Your task to perform on an android device: turn off improve location accuracy Image 0: 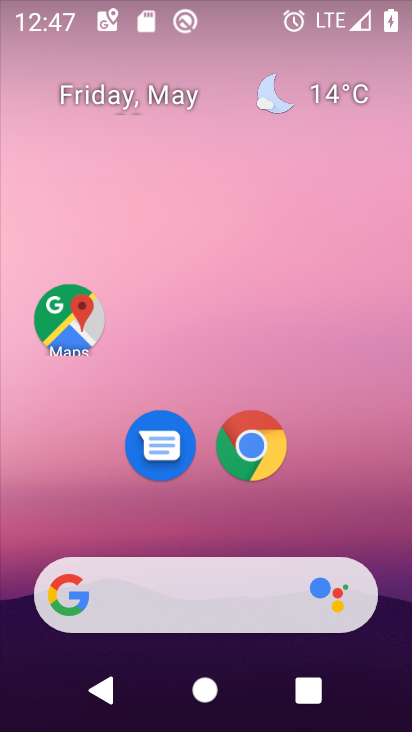
Step 0: drag from (147, 430) to (339, 113)
Your task to perform on an android device: turn off improve location accuracy Image 1: 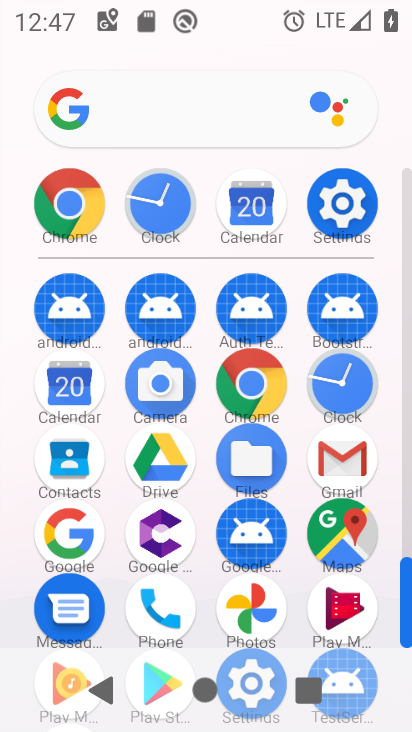
Step 1: click (325, 210)
Your task to perform on an android device: turn off improve location accuracy Image 2: 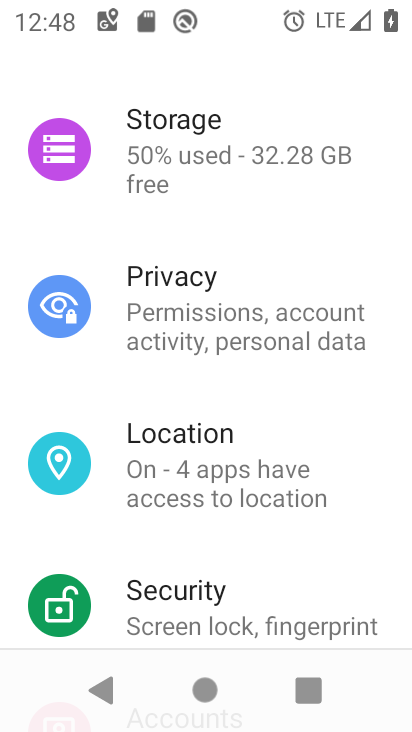
Step 2: click (141, 466)
Your task to perform on an android device: turn off improve location accuracy Image 3: 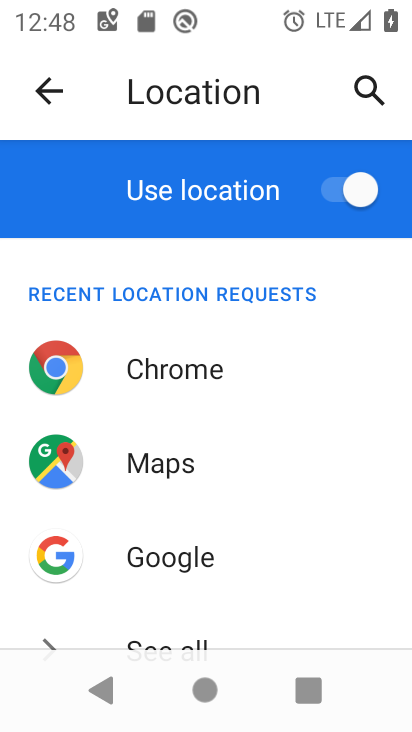
Step 3: drag from (18, 559) to (213, 244)
Your task to perform on an android device: turn off improve location accuracy Image 4: 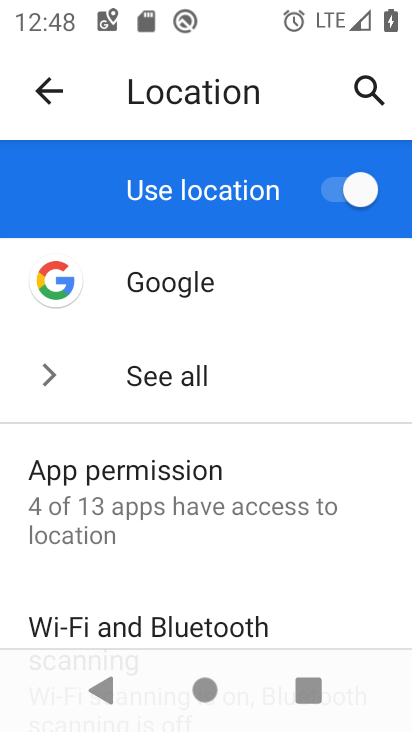
Step 4: drag from (180, 613) to (341, 267)
Your task to perform on an android device: turn off improve location accuracy Image 5: 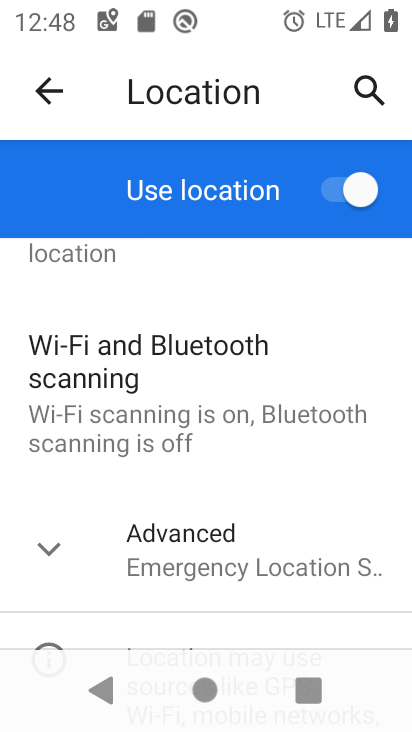
Step 5: click (144, 561)
Your task to perform on an android device: turn off improve location accuracy Image 6: 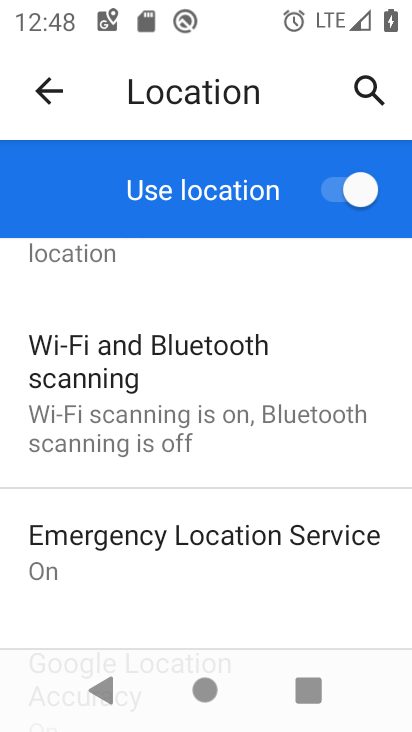
Step 6: drag from (54, 619) to (258, 242)
Your task to perform on an android device: turn off improve location accuracy Image 7: 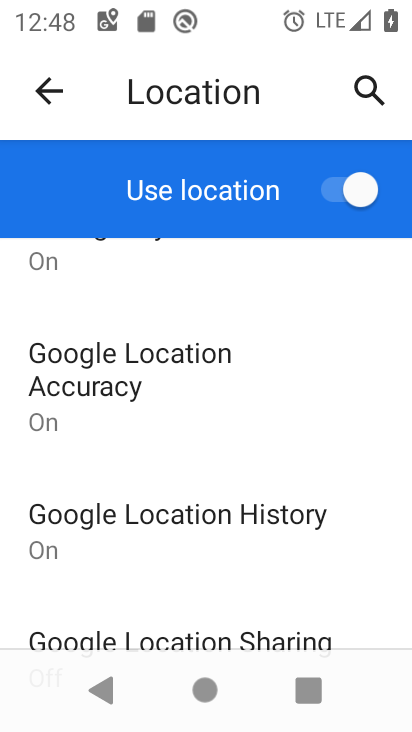
Step 7: drag from (218, 604) to (350, 269)
Your task to perform on an android device: turn off improve location accuracy Image 8: 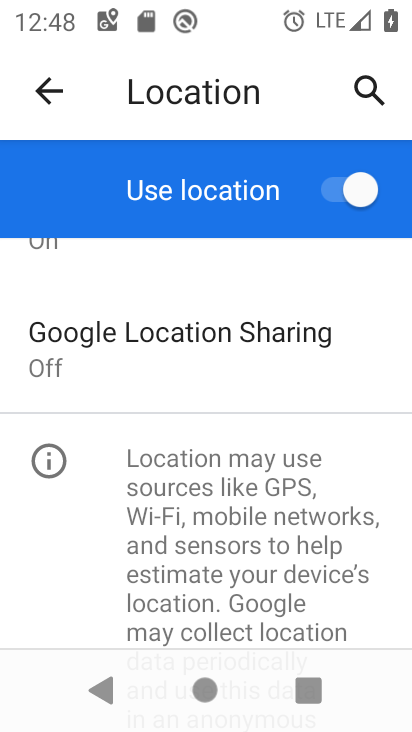
Step 8: drag from (334, 316) to (274, 634)
Your task to perform on an android device: turn off improve location accuracy Image 9: 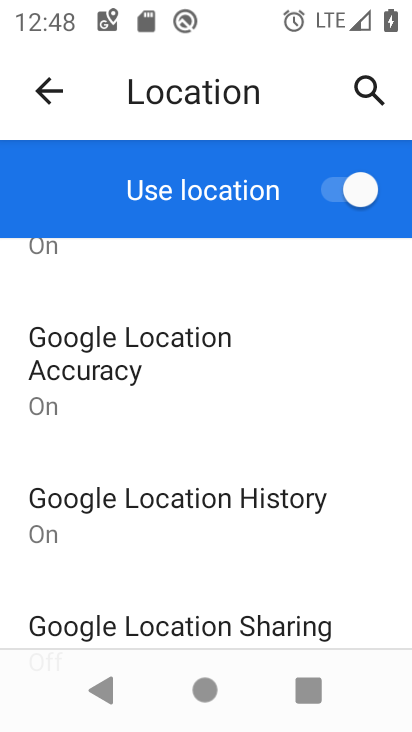
Step 9: drag from (273, 324) to (237, 519)
Your task to perform on an android device: turn off improve location accuracy Image 10: 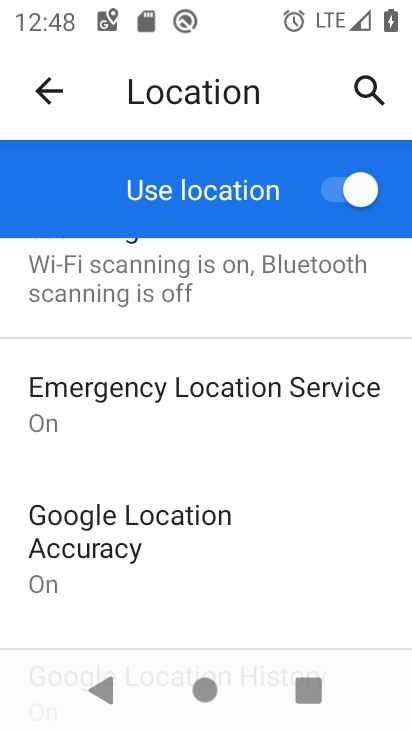
Step 10: click (103, 512)
Your task to perform on an android device: turn off improve location accuracy Image 11: 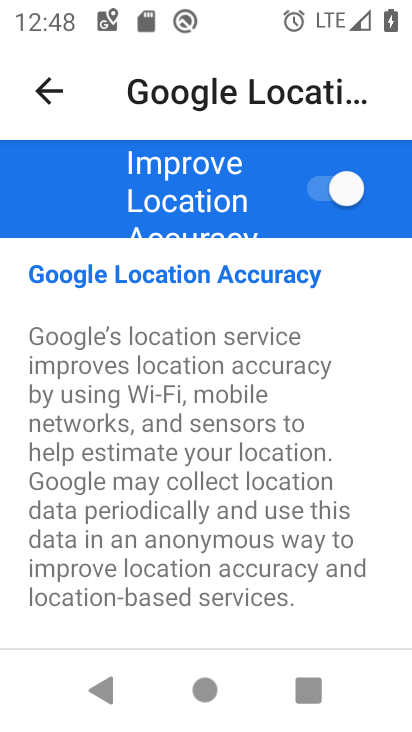
Step 11: click (345, 191)
Your task to perform on an android device: turn off improve location accuracy Image 12: 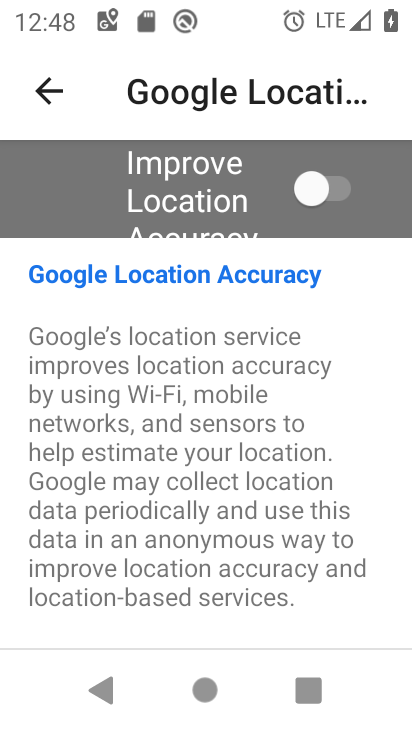
Step 12: task complete